Your task to perform on an android device: toggle notification dots Image 0: 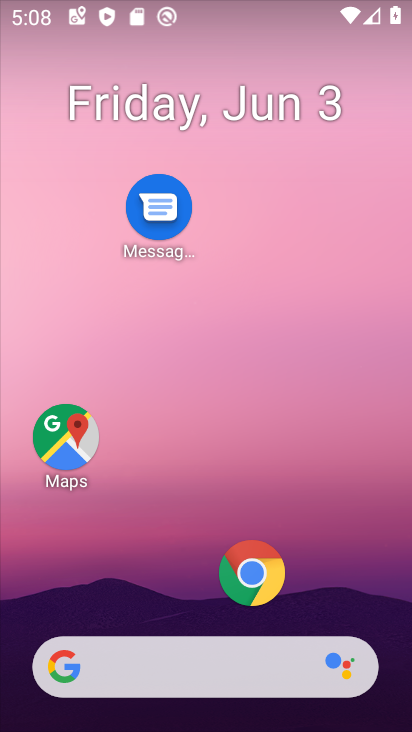
Step 0: drag from (297, 606) to (301, 229)
Your task to perform on an android device: toggle notification dots Image 1: 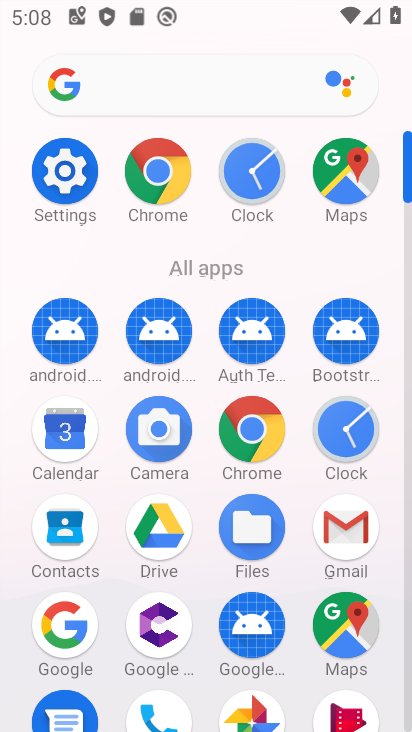
Step 1: click (66, 182)
Your task to perform on an android device: toggle notification dots Image 2: 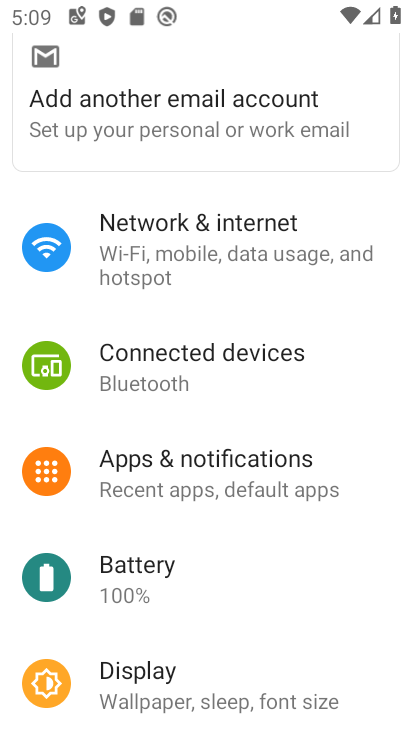
Step 2: click (212, 473)
Your task to perform on an android device: toggle notification dots Image 3: 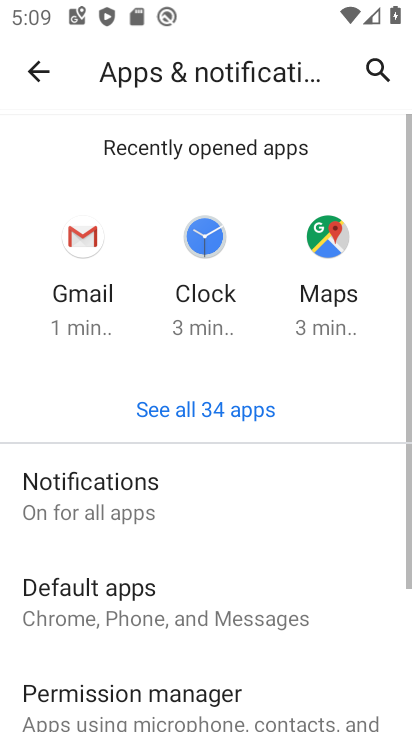
Step 3: click (139, 495)
Your task to perform on an android device: toggle notification dots Image 4: 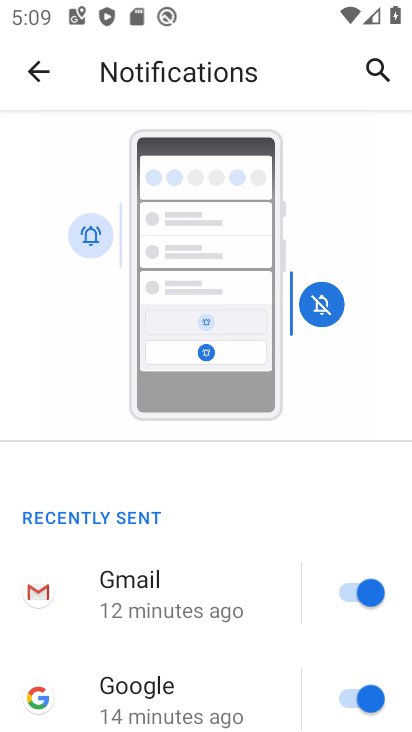
Step 4: drag from (230, 638) to (241, 295)
Your task to perform on an android device: toggle notification dots Image 5: 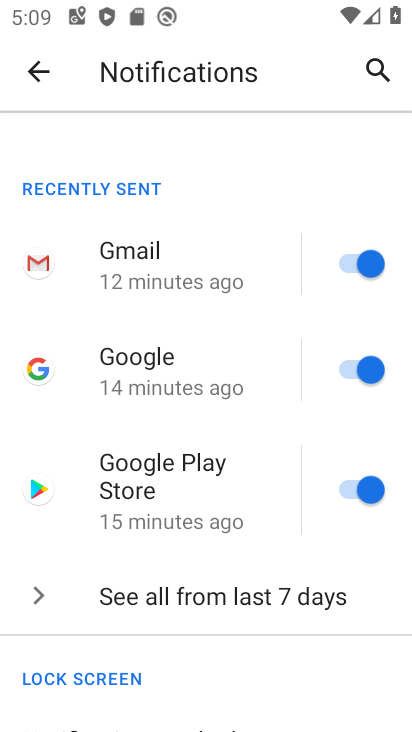
Step 5: drag from (249, 636) to (221, 330)
Your task to perform on an android device: toggle notification dots Image 6: 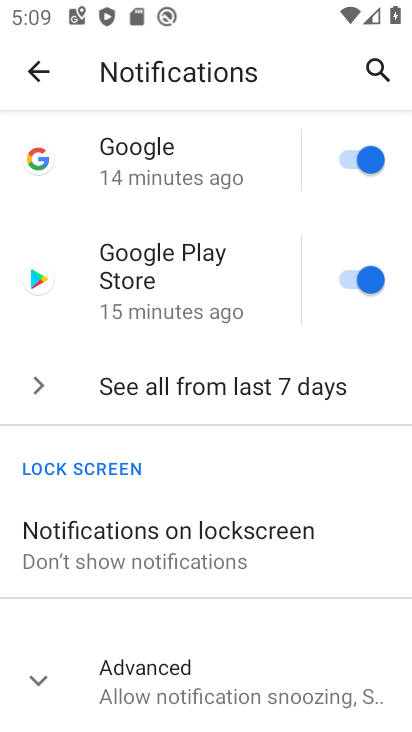
Step 6: click (170, 683)
Your task to perform on an android device: toggle notification dots Image 7: 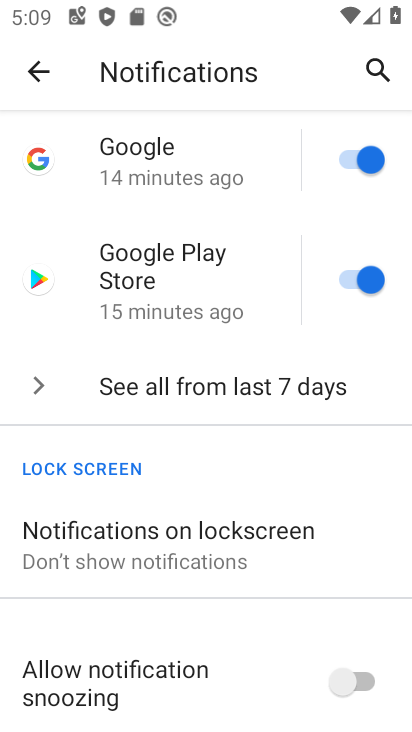
Step 7: drag from (228, 625) to (223, 365)
Your task to perform on an android device: toggle notification dots Image 8: 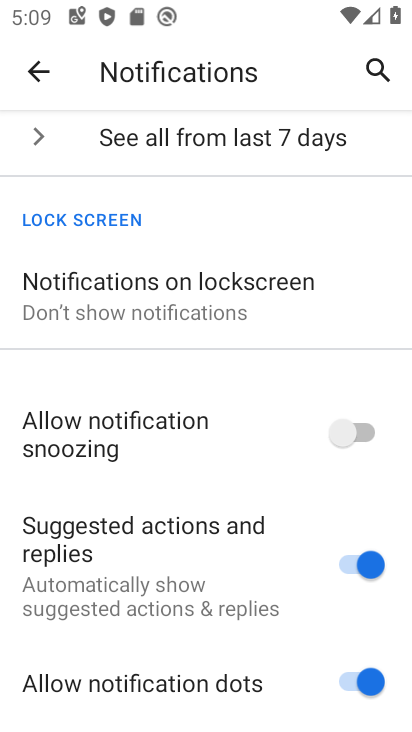
Step 8: click (343, 675)
Your task to perform on an android device: toggle notification dots Image 9: 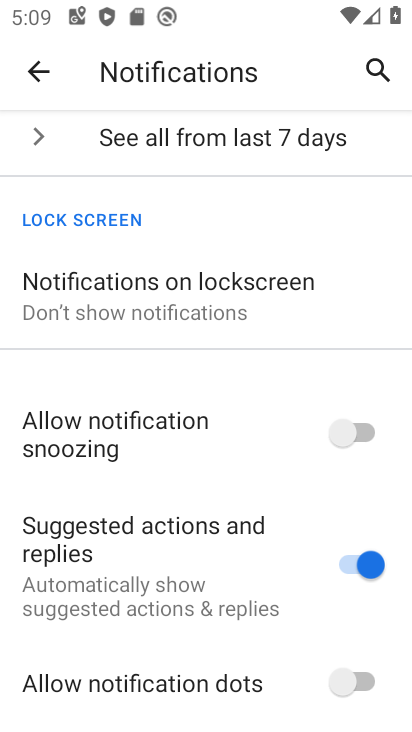
Step 9: task complete